Your task to perform on an android device: check storage Image 0: 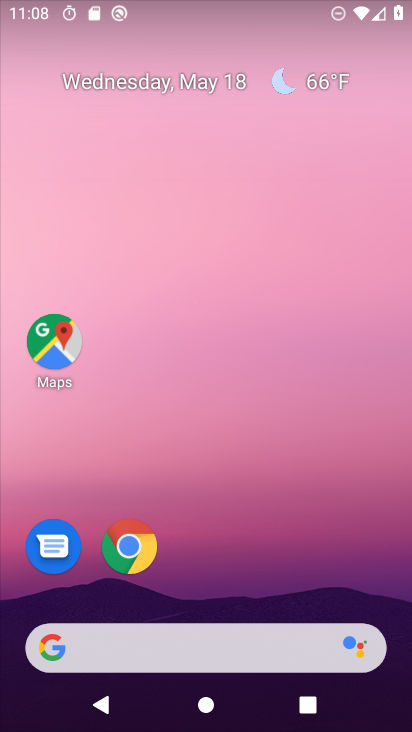
Step 0: drag from (232, 610) to (245, 137)
Your task to perform on an android device: check storage Image 1: 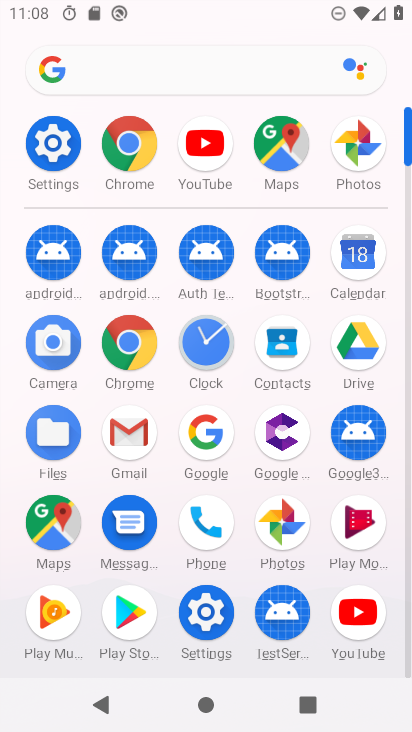
Step 1: click (199, 627)
Your task to perform on an android device: check storage Image 2: 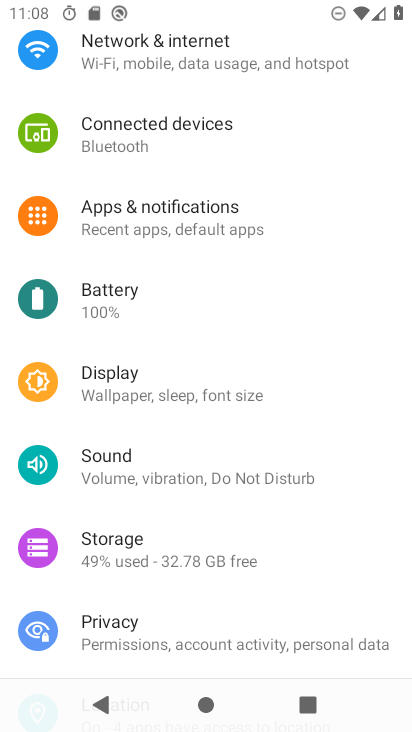
Step 2: click (136, 557)
Your task to perform on an android device: check storage Image 3: 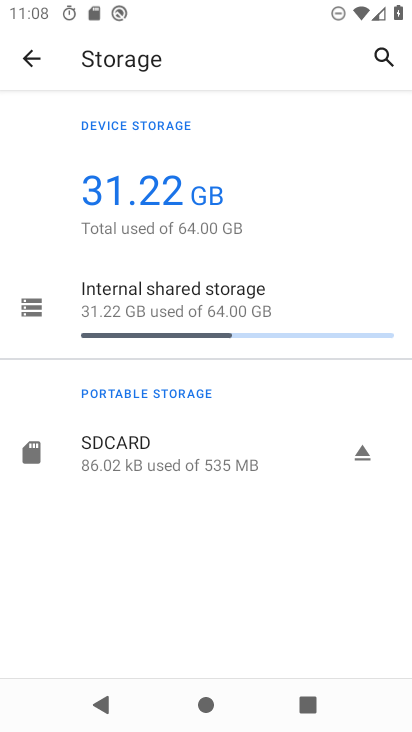
Step 3: task complete